Your task to perform on an android device: toggle airplane mode Image 0: 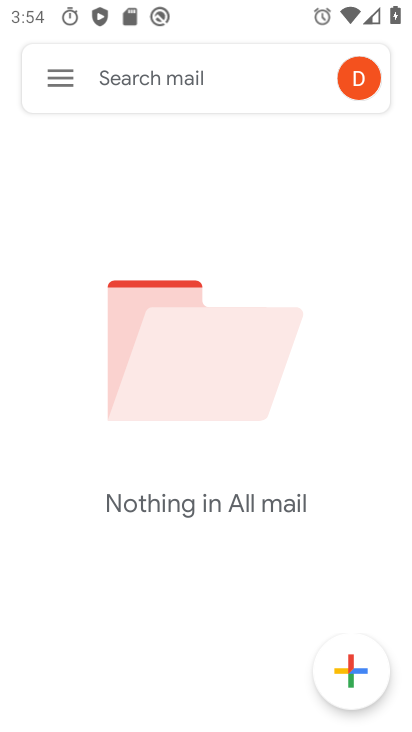
Step 0: press home button
Your task to perform on an android device: toggle airplane mode Image 1: 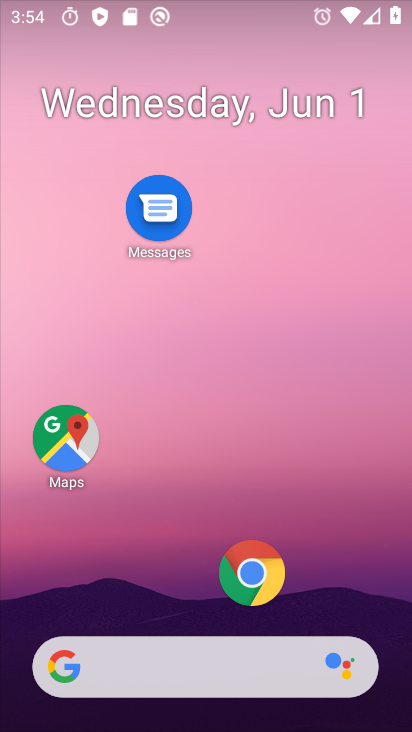
Step 1: drag from (207, 599) to (217, 244)
Your task to perform on an android device: toggle airplane mode Image 2: 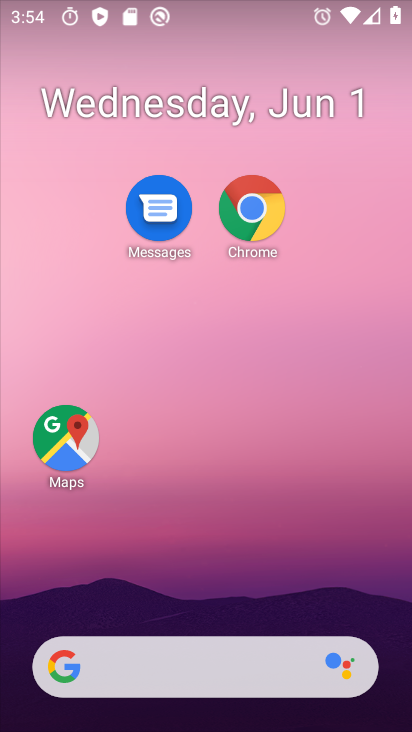
Step 2: drag from (191, 623) to (203, 179)
Your task to perform on an android device: toggle airplane mode Image 3: 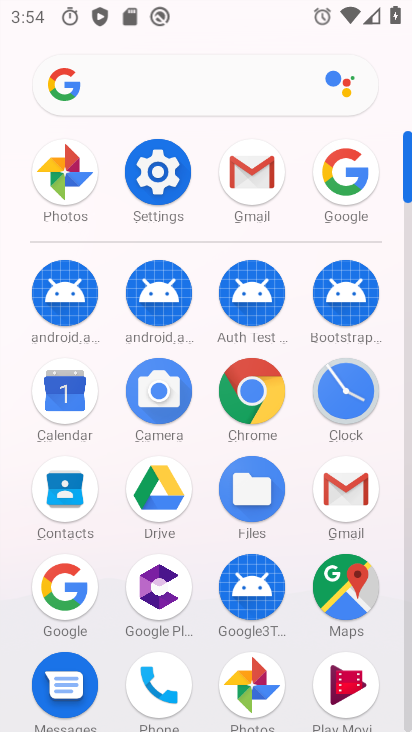
Step 3: click (160, 159)
Your task to perform on an android device: toggle airplane mode Image 4: 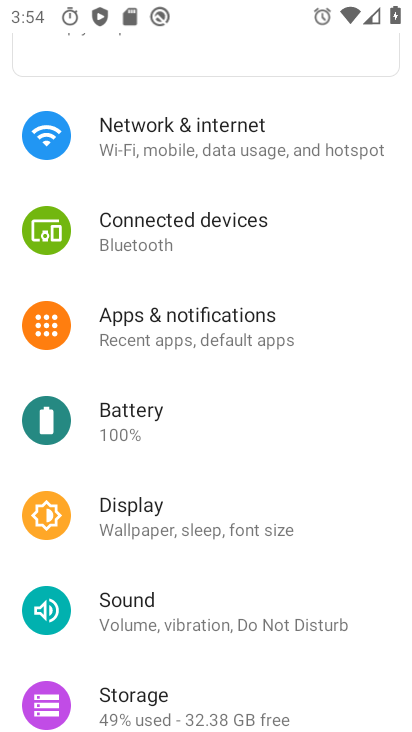
Step 4: click (160, 159)
Your task to perform on an android device: toggle airplane mode Image 5: 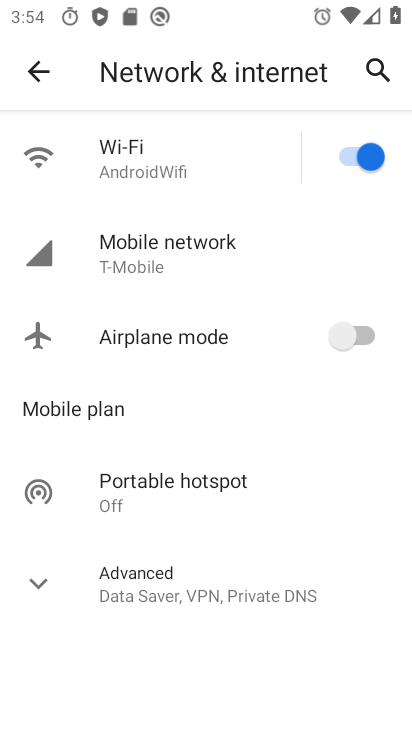
Step 5: click (353, 335)
Your task to perform on an android device: toggle airplane mode Image 6: 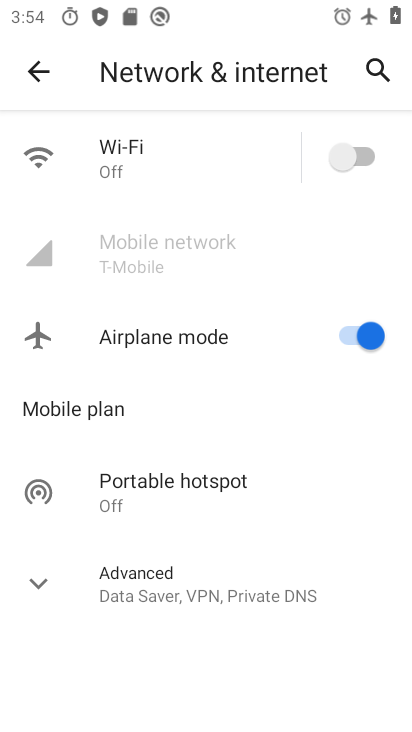
Step 6: task complete